Your task to perform on an android device: check storage Image 0: 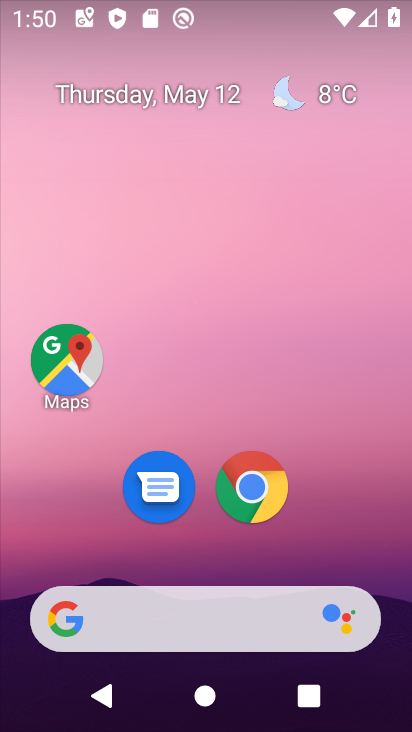
Step 0: drag from (289, 576) to (356, 26)
Your task to perform on an android device: check storage Image 1: 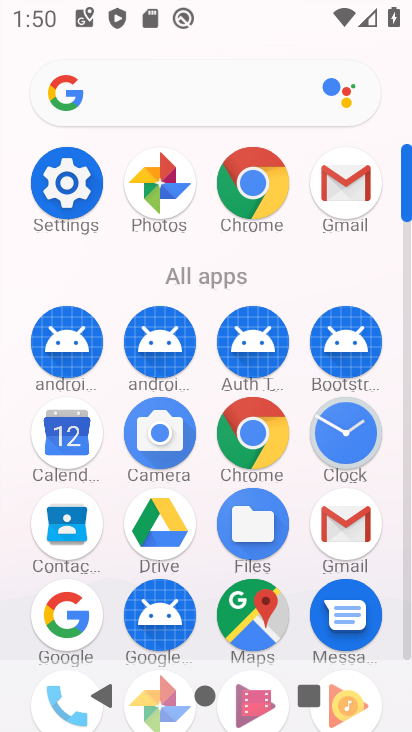
Step 1: click (73, 182)
Your task to perform on an android device: check storage Image 2: 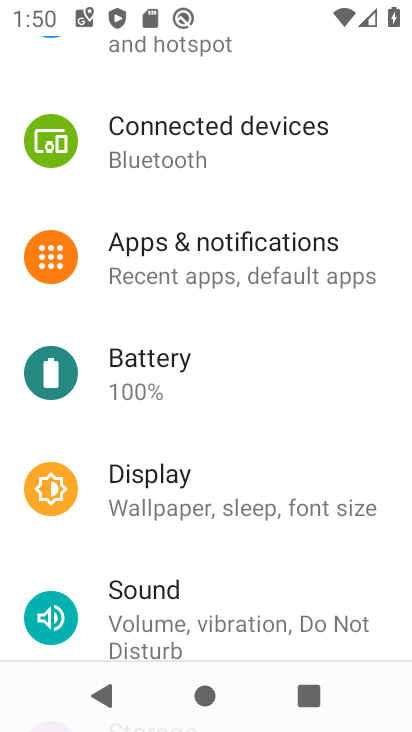
Step 2: drag from (275, 527) to (286, 217)
Your task to perform on an android device: check storage Image 3: 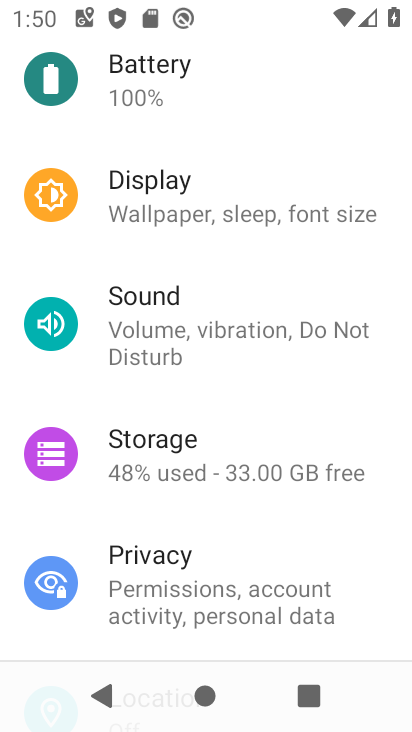
Step 3: click (204, 451)
Your task to perform on an android device: check storage Image 4: 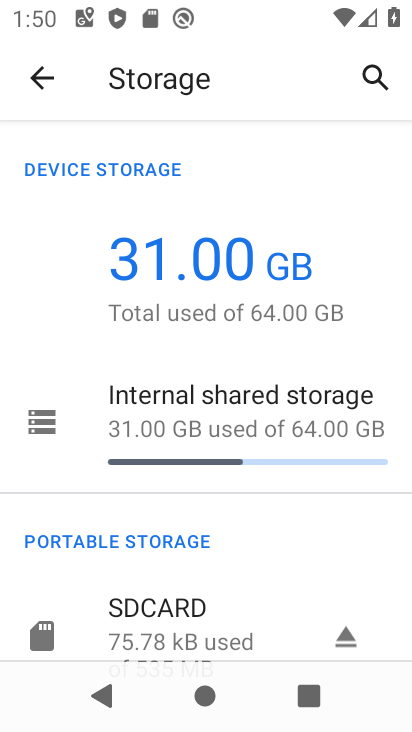
Step 4: task complete